Your task to perform on an android device: turn off smart reply in the gmail app Image 0: 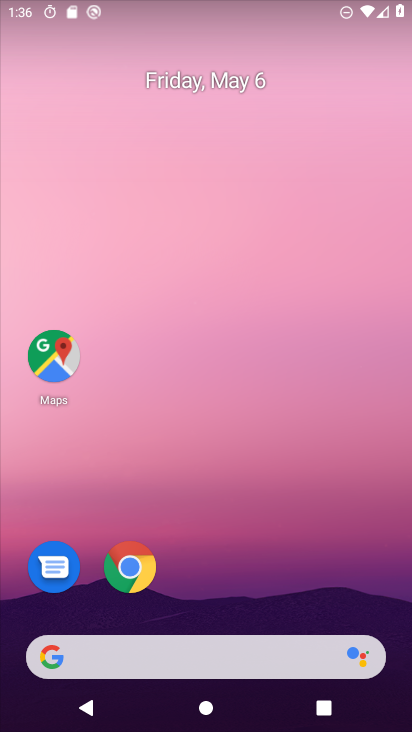
Step 0: drag from (300, 599) to (279, 254)
Your task to perform on an android device: turn off smart reply in the gmail app Image 1: 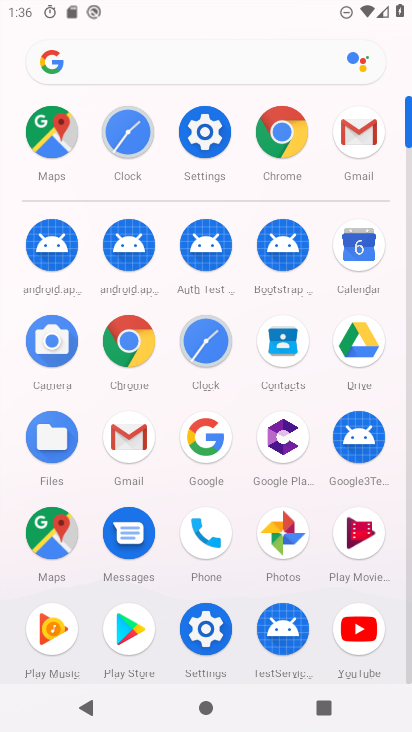
Step 1: click (345, 139)
Your task to perform on an android device: turn off smart reply in the gmail app Image 2: 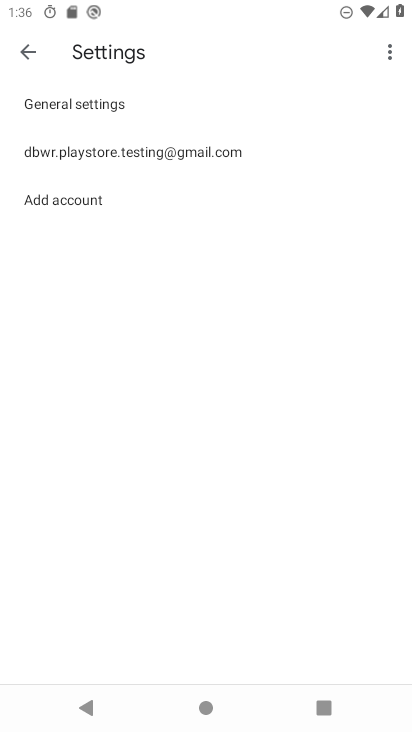
Step 2: click (148, 150)
Your task to perform on an android device: turn off smart reply in the gmail app Image 3: 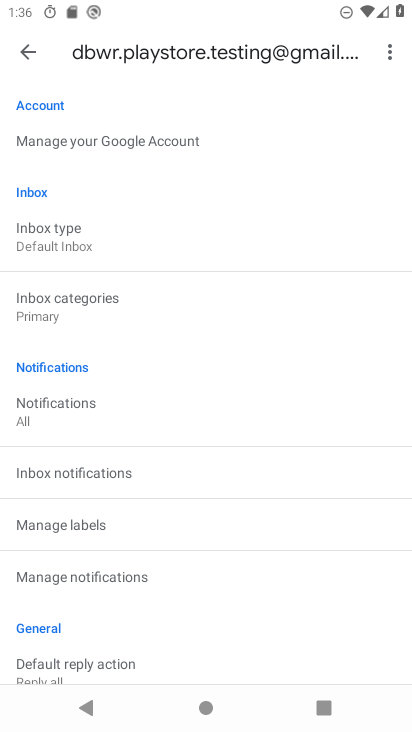
Step 3: drag from (98, 646) to (202, 235)
Your task to perform on an android device: turn off smart reply in the gmail app Image 4: 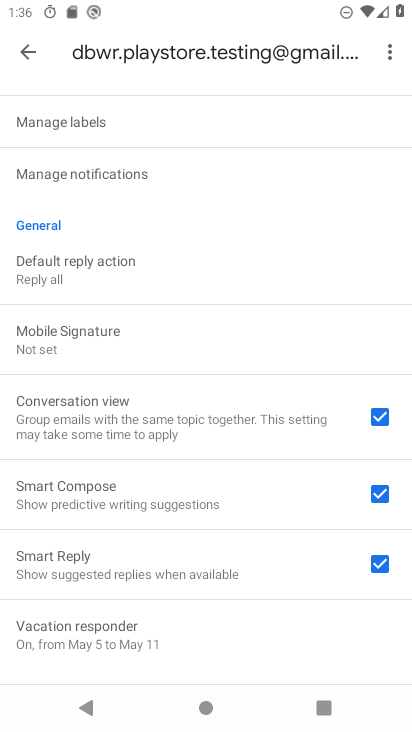
Step 4: click (134, 566)
Your task to perform on an android device: turn off smart reply in the gmail app Image 5: 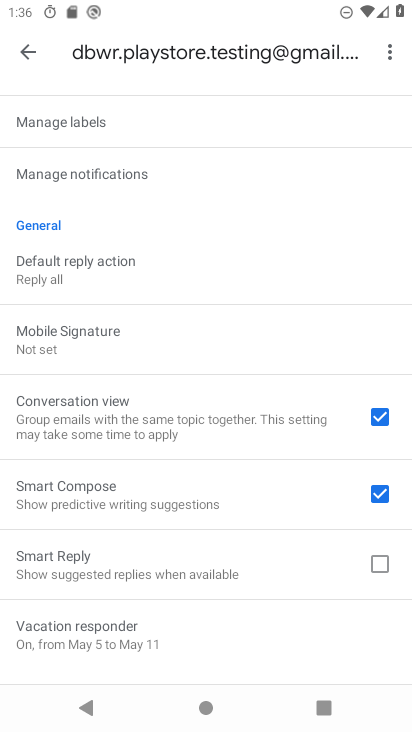
Step 5: task complete